Your task to perform on an android device: Search for pizza restaurants on Maps Image 0: 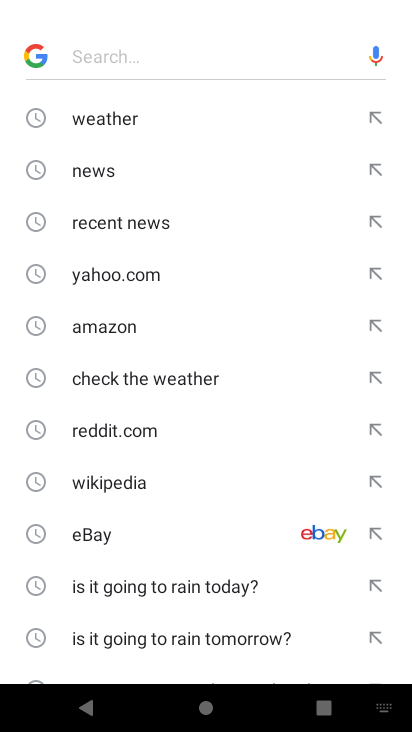
Step 0: click (288, 257)
Your task to perform on an android device: Search for pizza restaurants on Maps Image 1: 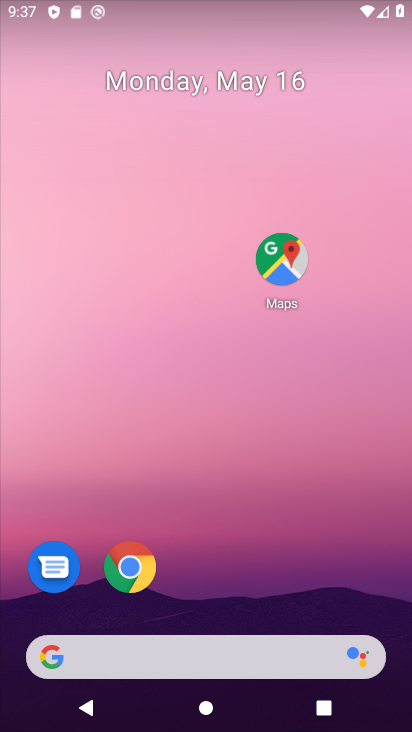
Step 1: click (280, 266)
Your task to perform on an android device: Search for pizza restaurants on Maps Image 2: 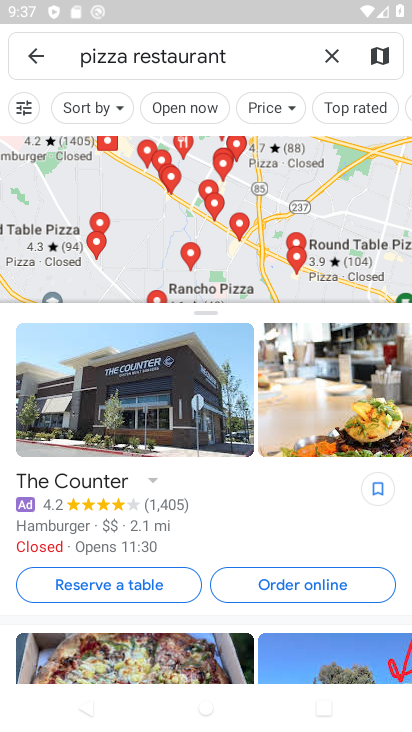
Step 2: click (329, 56)
Your task to perform on an android device: Search for pizza restaurants on Maps Image 3: 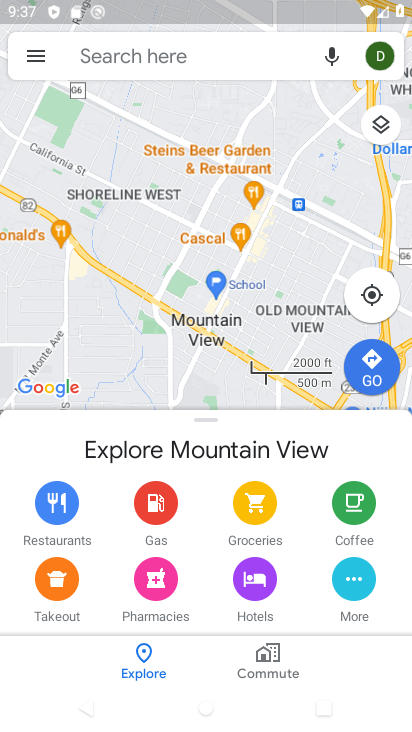
Step 3: click (203, 62)
Your task to perform on an android device: Search for pizza restaurants on Maps Image 4: 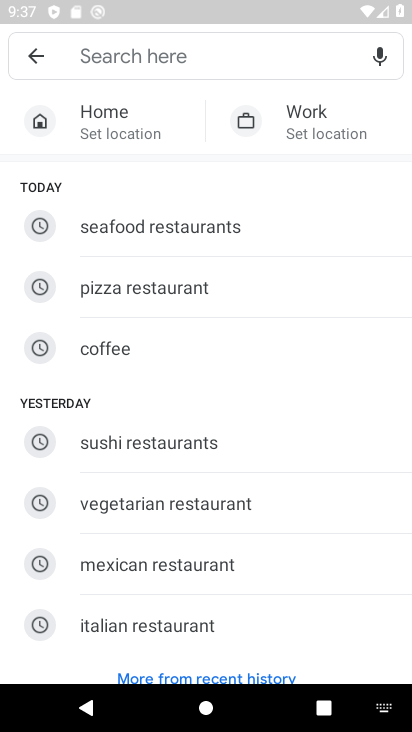
Step 4: click (158, 285)
Your task to perform on an android device: Search for pizza restaurants on Maps Image 5: 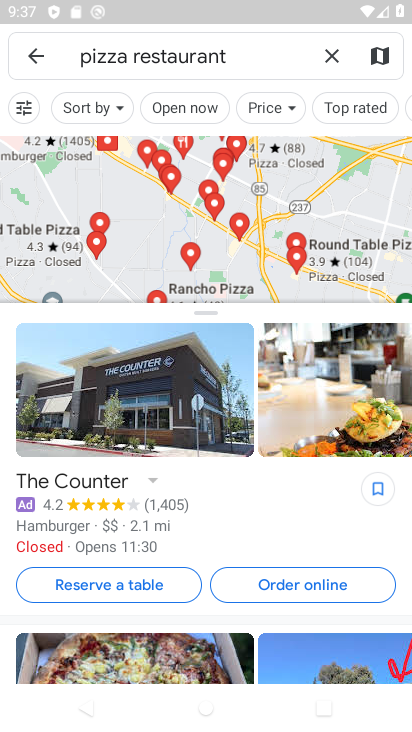
Step 5: task complete